Your task to perform on an android device: Check the settings for the Google Play Music app Image 0: 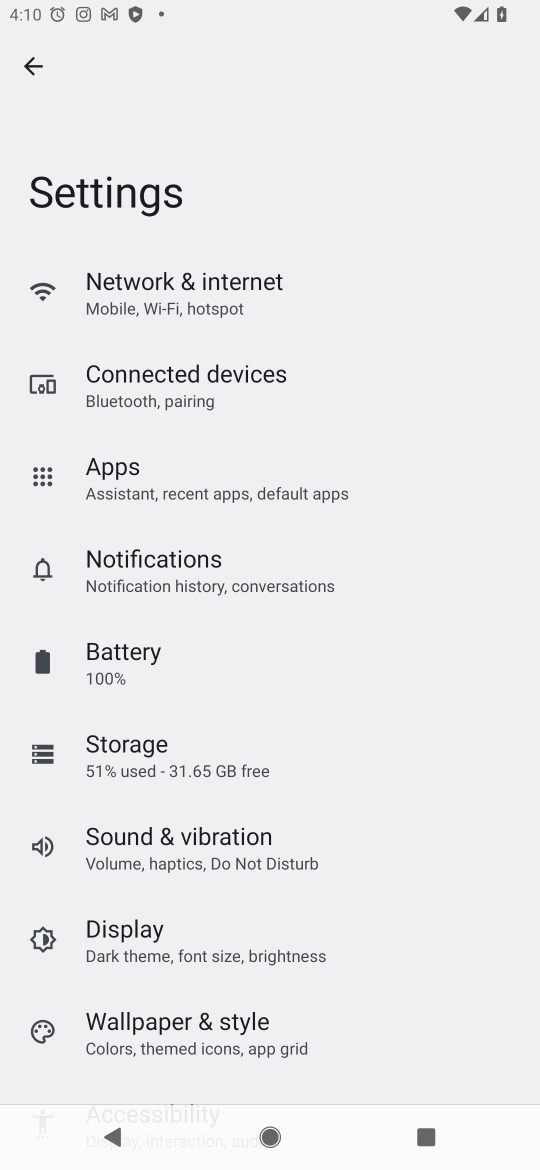
Step 0: press home button
Your task to perform on an android device: Check the settings for the Google Play Music app Image 1: 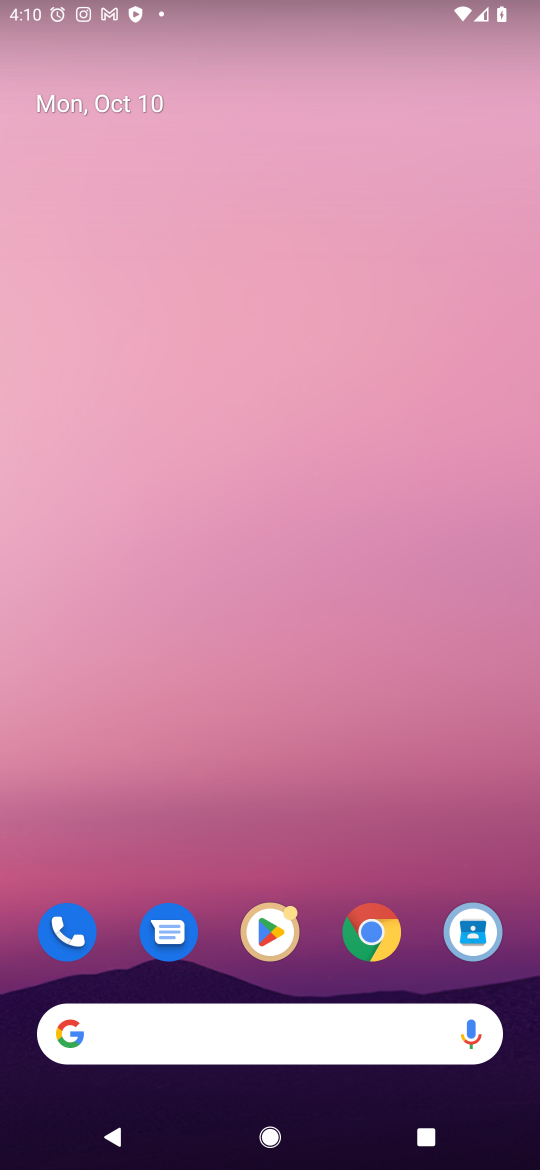
Step 1: drag from (445, 807) to (424, 116)
Your task to perform on an android device: Check the settings for the Google Play Music app Image 2: 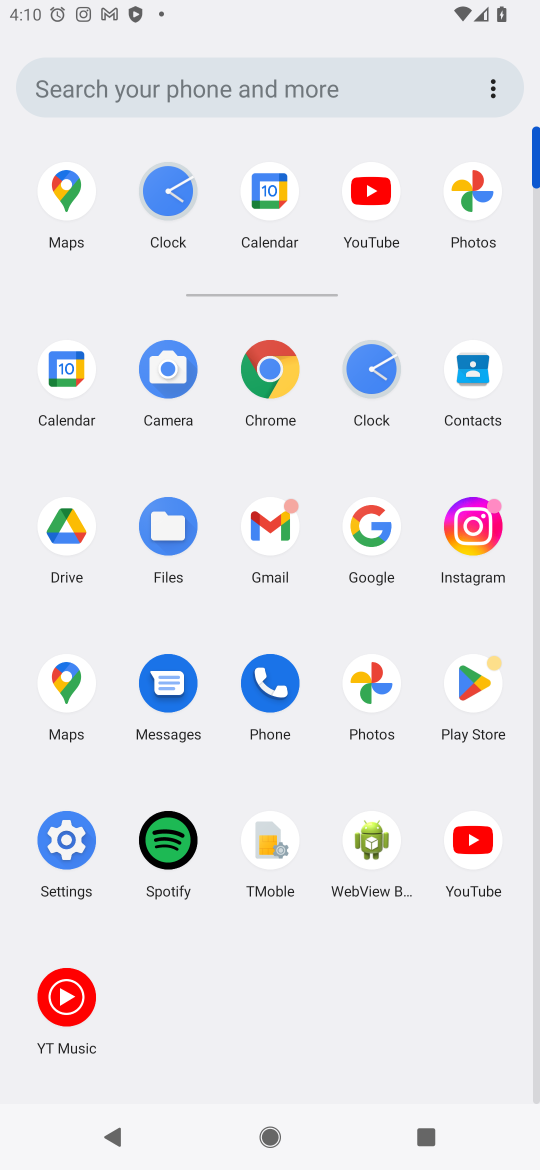
Step 2: click (486, 687)
Your task to perform on an android device: Check the settings for the Google Play Music app Image 3: 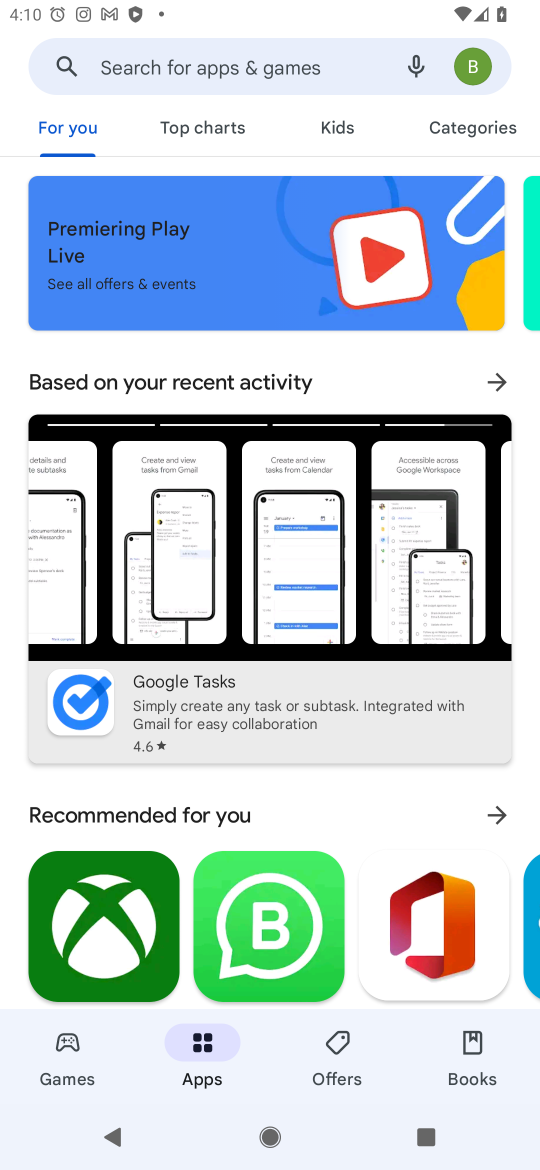
Step 3: click (277, 65)
Your task to perform on an android device: Check the settings for the Google Play Music app Image 4: 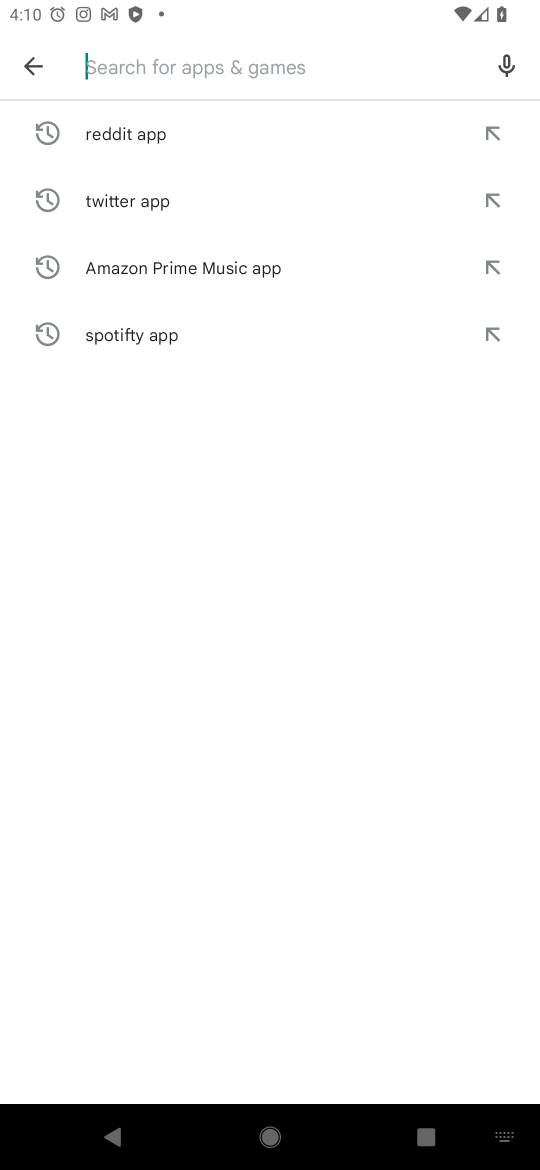
Step 4: type "Google Play Music app"
Your task to perform on an android device: Check the settings for the Google Play Music app Image 5: 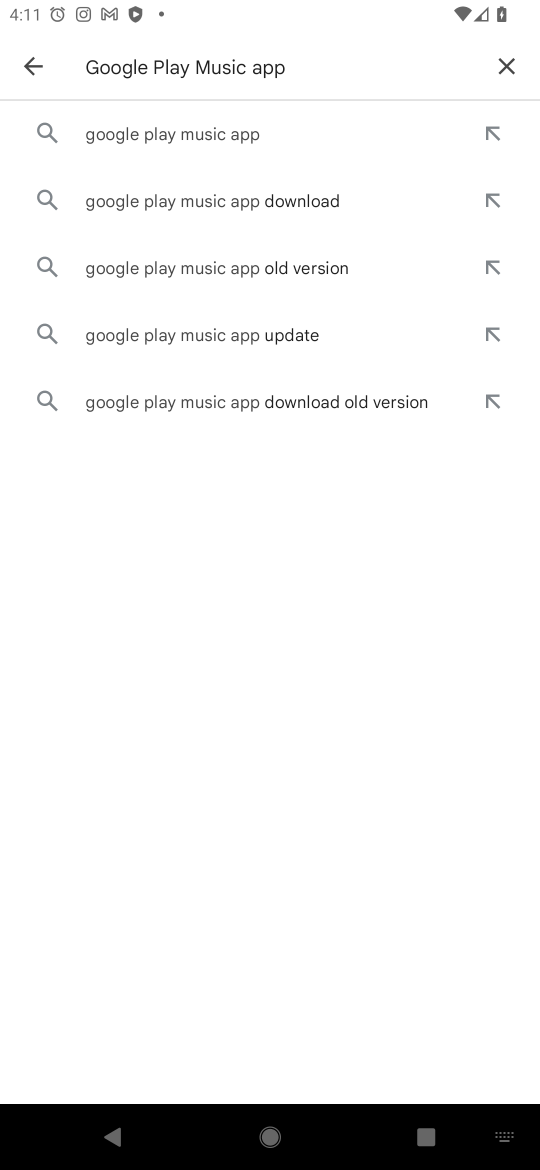
Step 5: click (191, 147)
Your task to perform on an android device: Check the settings for the Google Play Music app Image 6: 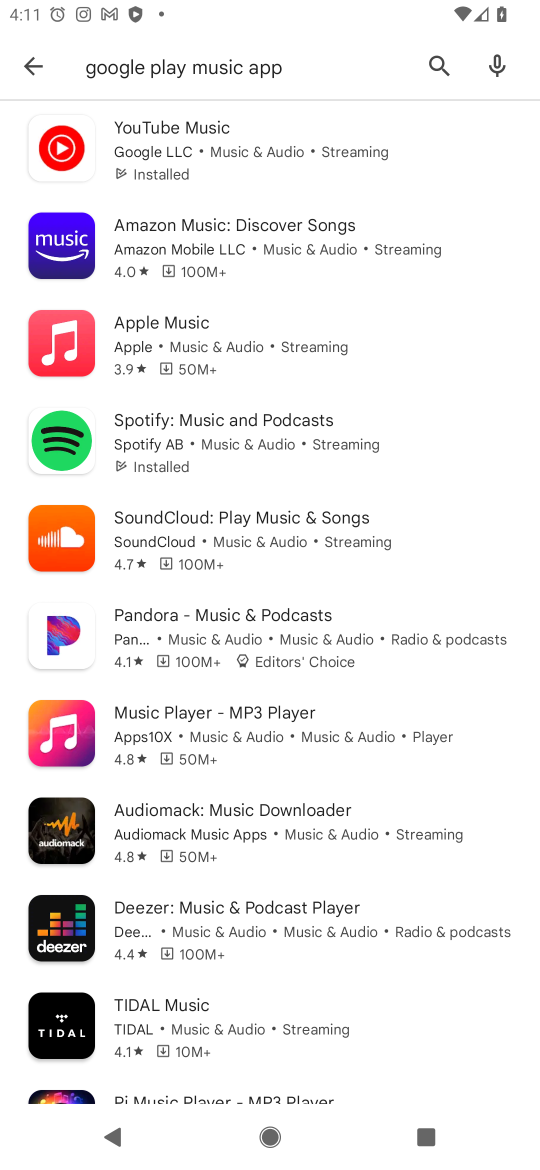
Step 6: click (201, 142)
Your task to perform on an android device: Check the settings for the Google Play Music app Image 7: 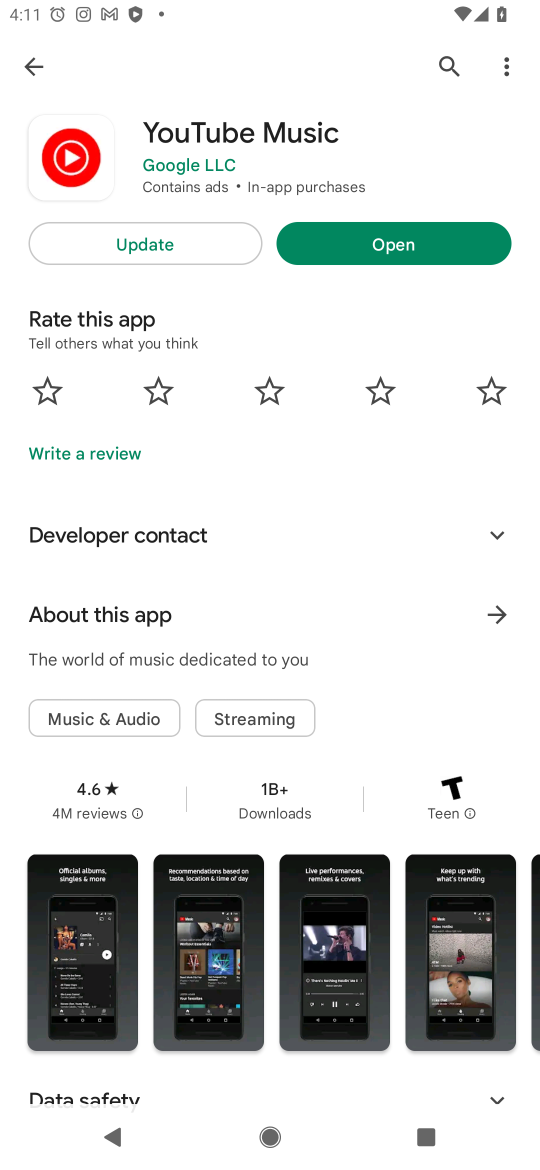
Step 7: task complete